Your task to perform on an android device: Open Youtube and go to the subscriptions tab Image 0: 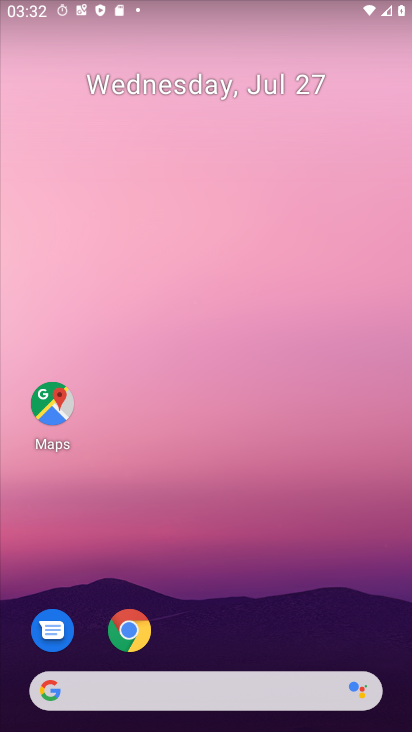
Step 0: drag from (285, 671) to (285, 191)
Your task to perform on an android device: Open Youtube and go to the subscriptions tab Image 1: 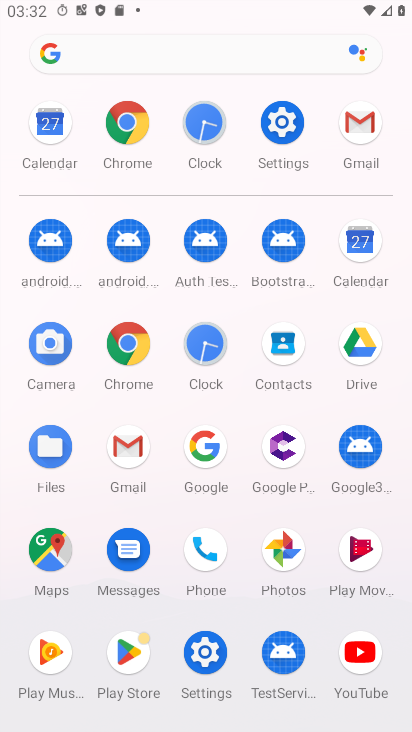
Step 1: click (345, 640)
Your task to perform on an android device: Open Youtube and go to the subscriptions tab Image 2: 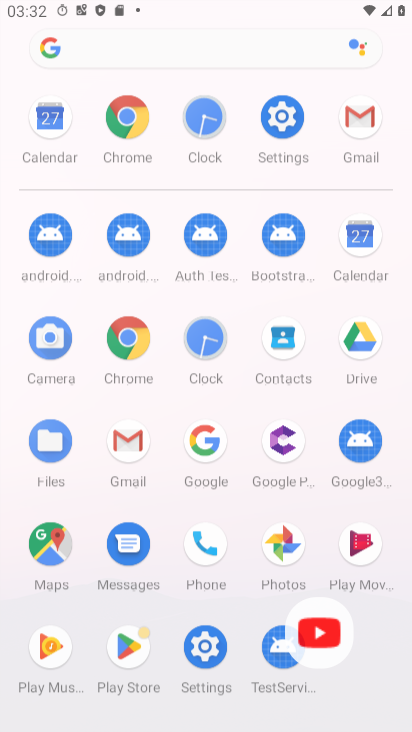
Step 2: click (347, 646)
Your task to perform on an android device: Open Youtube and go to the subscriptions tab Image 3: 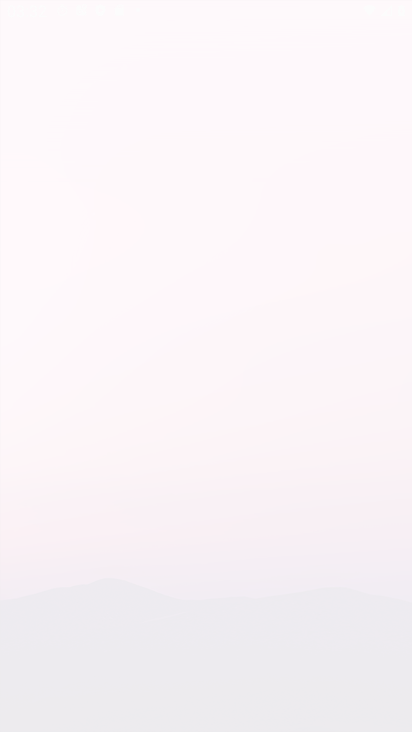
Step 3: click (350, 643)
Your task to perform on an android device: Open Youtube and go to the subscriptions tab Image 4: 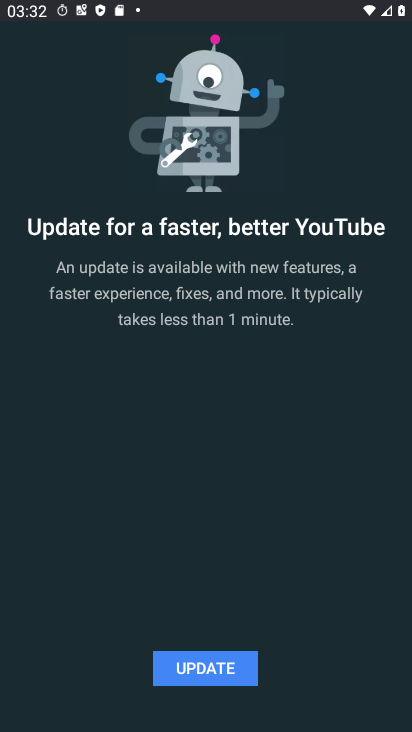
Step 4: click (353, 645)
Your task to perform on an android device: Open Youtube and go to the subscriptions tab Image 5: 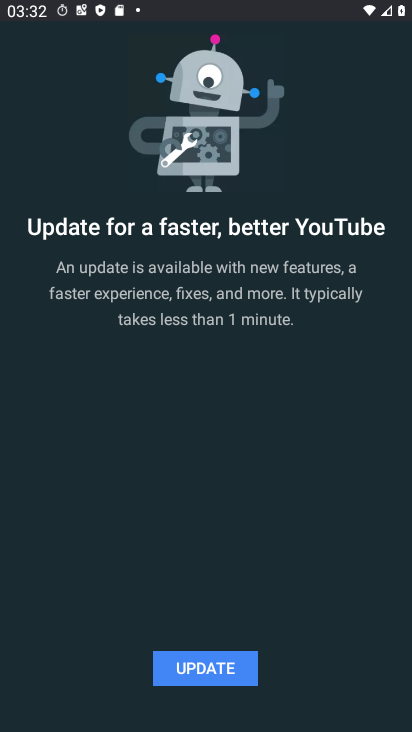
Step 5: click (219, 667)
Your task to perform on an android device: Open Youtube and go to the subscriptions tab Image 6: 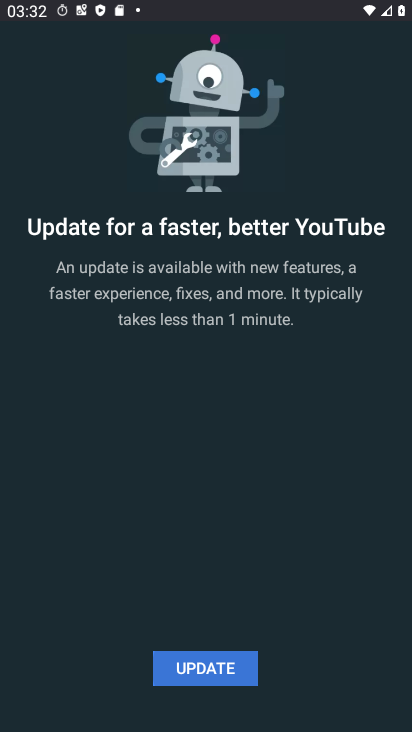
Step 6: click (221, 664)
Your task to perform on an android device: Open Youtube and go to the subscriptions tab Image 7: 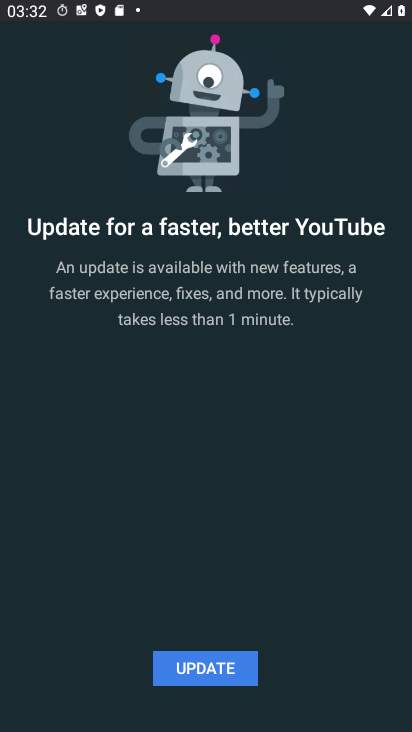
Step 7: click (222, 664)
Your task to perform on an android device: Open Youtube and go to the subscriptions tab Image 8: 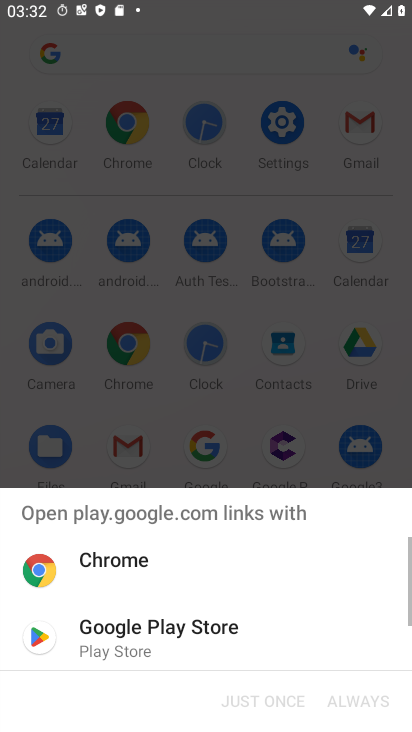
Step 8: click (119, 602)
Your task to perform on an android device: Open Youtube and go to the subscriptions tab Image 9: 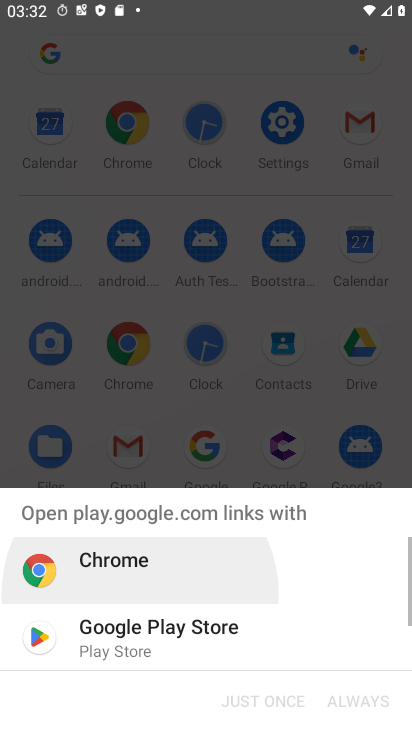
Step 9: click (122, 628)
Your task to perform on an android device: Open Youtube and go to the subscriptions tab Image 10: 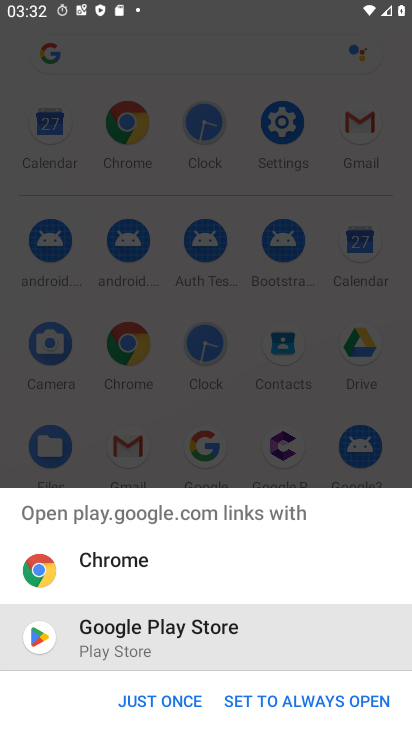
Step 10: click (153, 703)
Your task to perform on an android device: Open Youtube and go to the subscriptions tab Image 11: 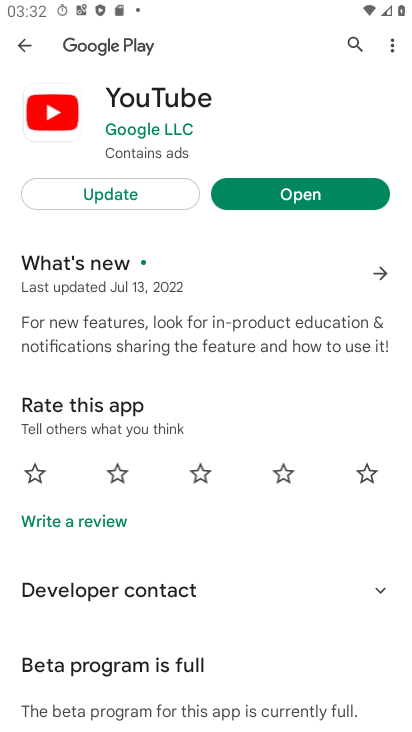
Step 11: click (322, 188)
Your task to perform on an android device: Open Youtube and go to the subscriptions tab Image 12: 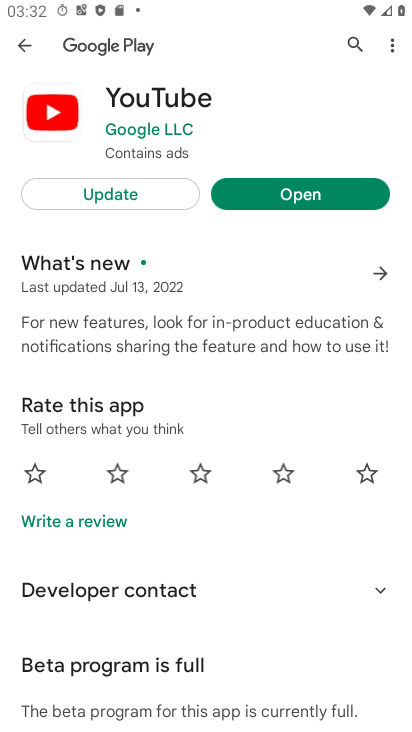
Step 12: click (323, 189)
Your task to perform on an android device: Open Youtube and go to the subscriptions tab Image 13: 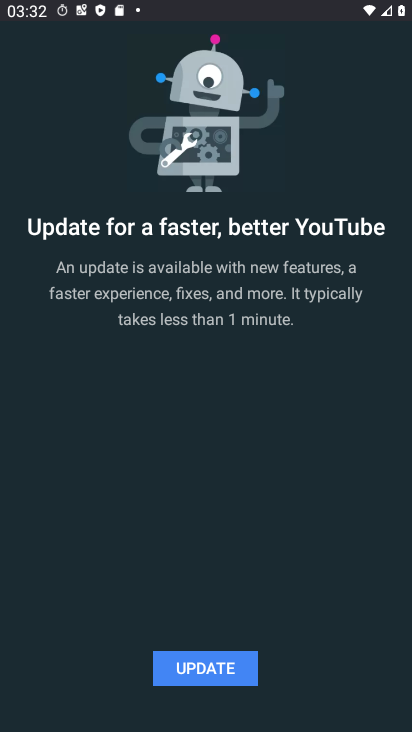
Step 13: click (220, 675)
Your task to perform on an android device: Open Youtube and go to the subscriptions tab Image 14: 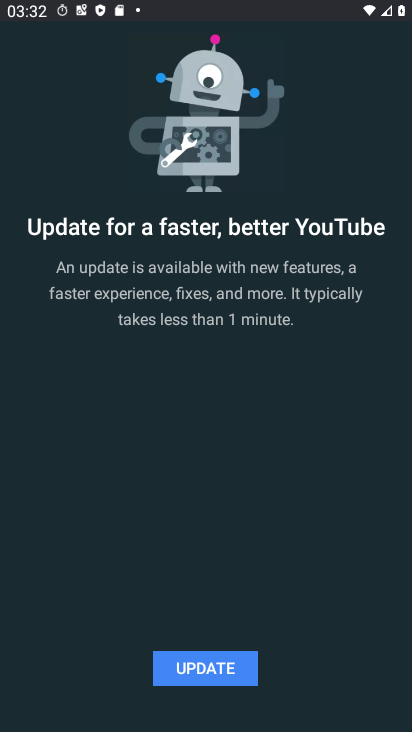
Step 14: click (221, 662)
Your task to perform on an android device: Open Youtube and go to the subscriptions tab Image 15: 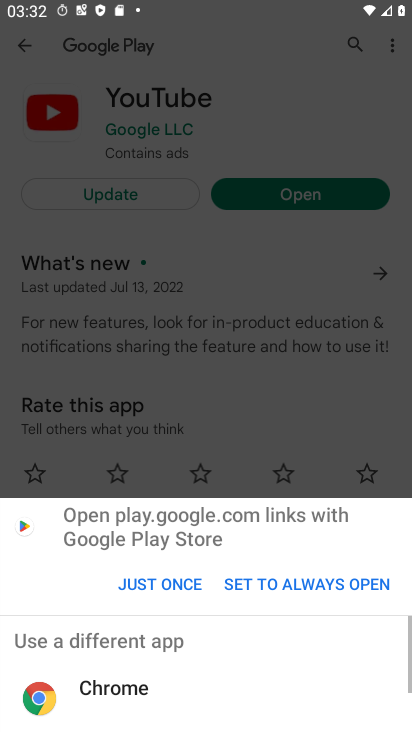
Step 15: click (114, 681)
Your task to perform on an android device: Open Youtube and go to the subscriptions tab Image 16: 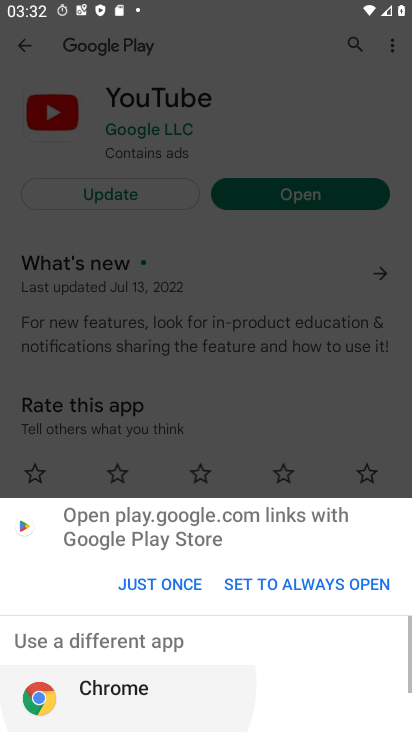
Step 16: click (115, 679)
Your task to perform on an android device: Open Youtube and go to the subscriptions tab Image 17: 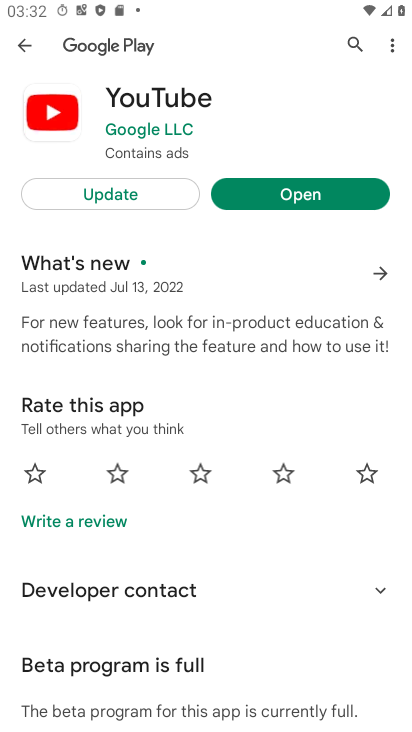
Step 17: click (144, 195)
Your task to perform on an android device: Open Youtube and go to the subscriptions tab Image 18: 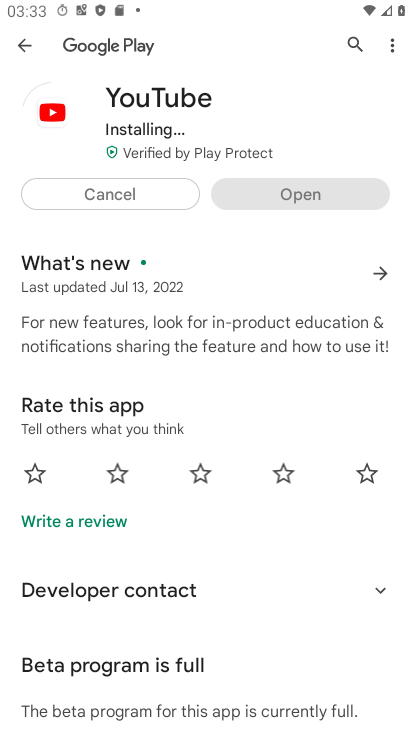
Step 18: click (280, 191)
Your task to perform on an android device: Open Youtube and go to the subscriptions tab Image 19: 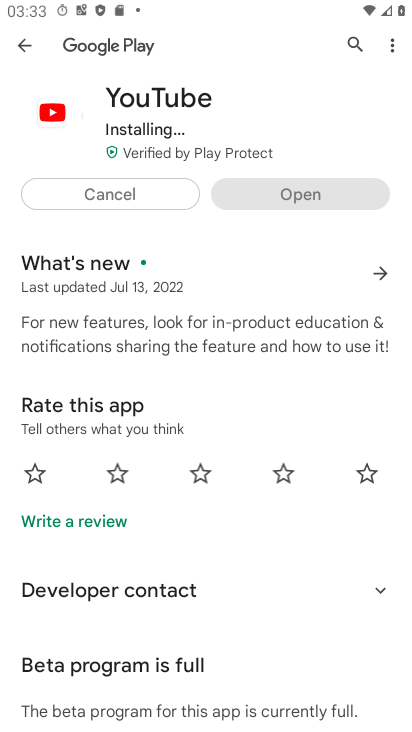
Step 19: click (281, 191)
Your task to perform on an android device: Open Youtube and go to the subscriptions tab Image 20: 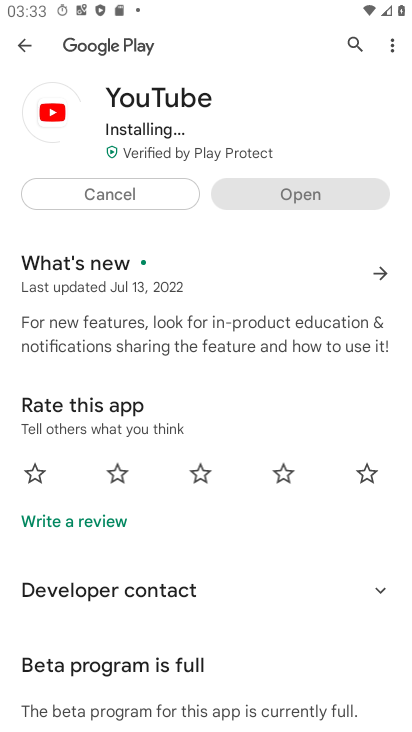
Step 20: click (282, 191)
Your task to perform on an android device: Open Youtube and go to the subscriptions tab Image 21: 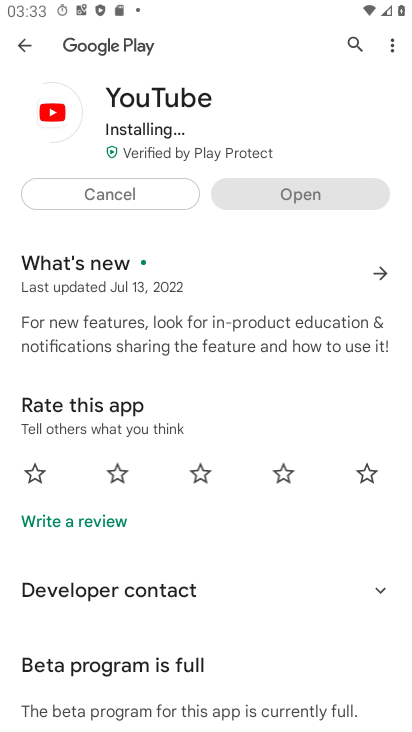
Step 21: click (284, 192)
Your task to perform on an android device: Open Youtube and go to the subscriptions tab Image 22: 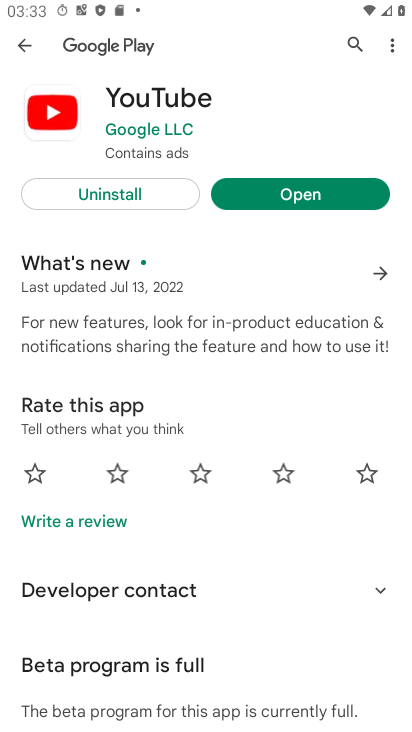
Step 22: click (300, 193)
Your task to perform on an android device: Open Youtube and go to the subscriptions tab Image 23: 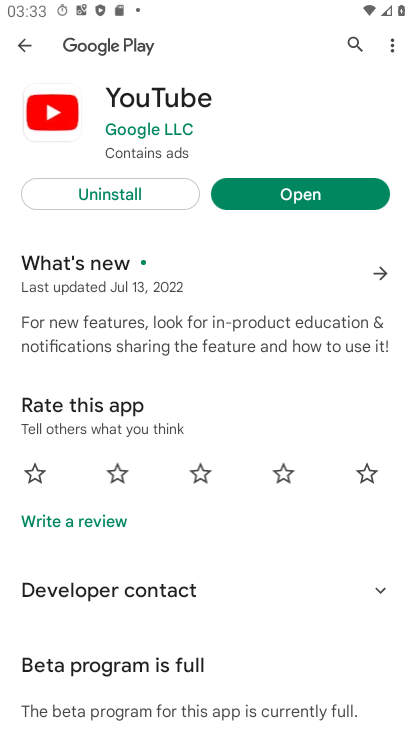
Step 23: click (292, 192)
Your task to perform on an android device: Open Youtube and go to the subscriptions tab Image 24: 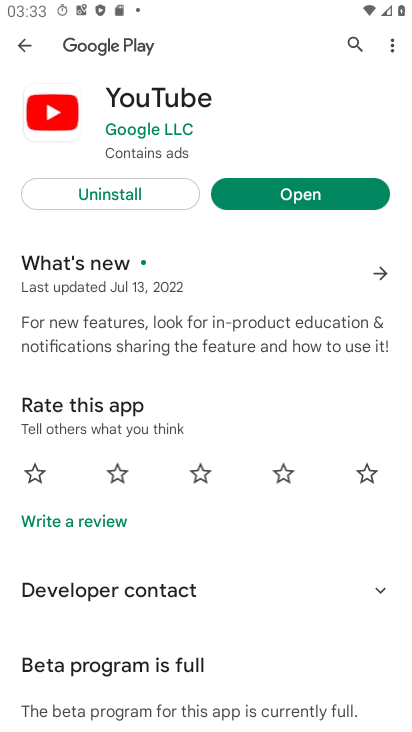
Step 24: click (295, 194)
Your task to perform on an android device: Open Youtube and go to the subscriptions tab Image 25: 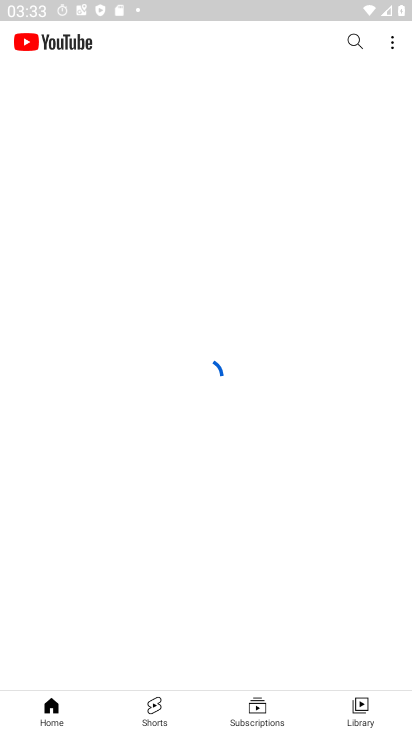
Step 25: click (259, 723)
Your task to perform on an android device: Open Youtube and go to the subscriptions tab Image 26: 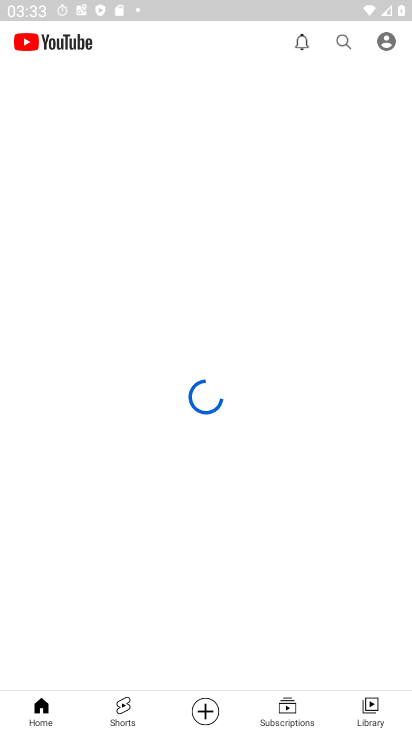
Step 26: click (259, 721)
Your task to perform on an android device: Open Youtube and go to the subscriptions tab Image 27: 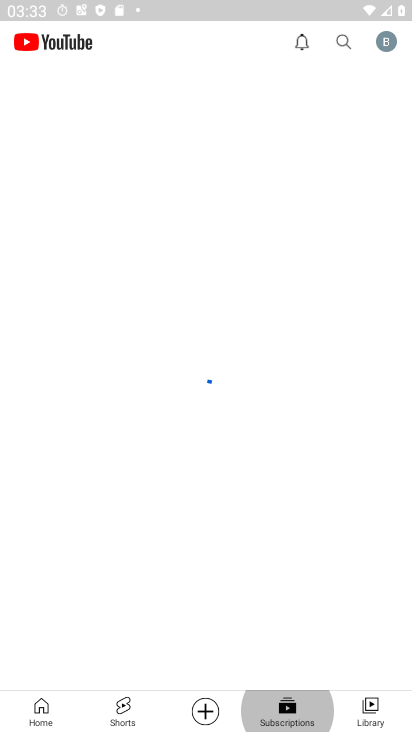
Step 27: click (259, 721)
Your task to perform on an android device: Open Youtube and go to the subscriptions tab Image 28: 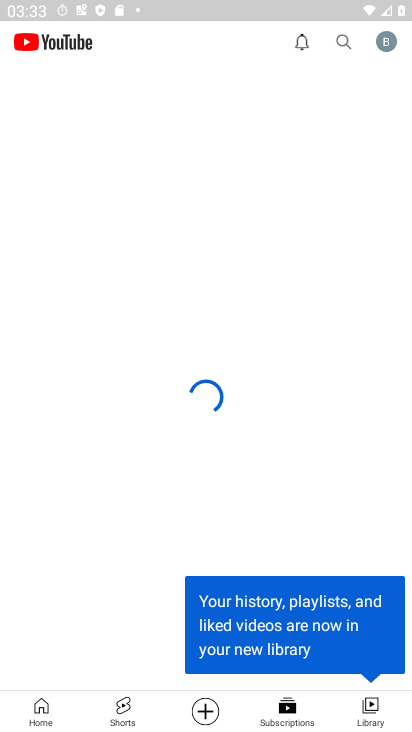
Step 28: task complete